Your task to perform on an android device: turn off wifi Image 0: 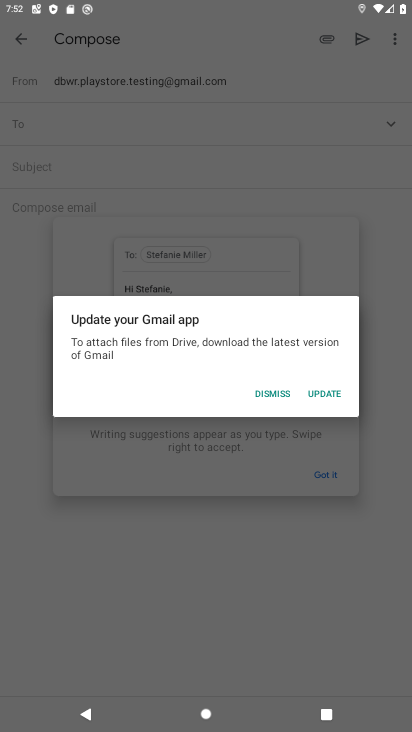
Step 0: press back button
Your task to perform on an android device: turn off wifi Image 1: 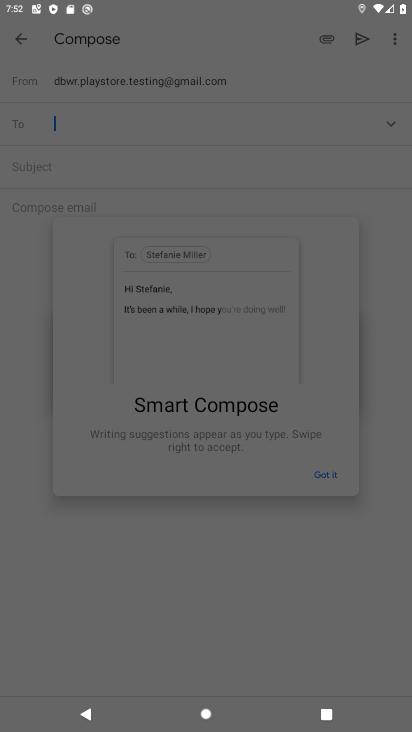
Step 1: press back button
Your task to perform on an android device: turn off wifi Image 2: 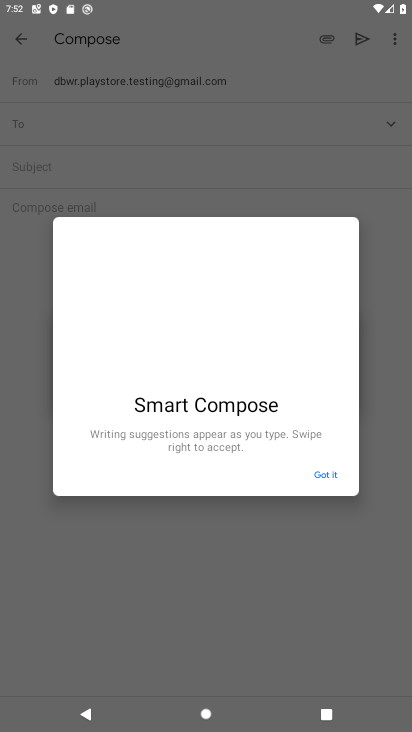
Step 2: press back button
Your task to perform on an android device: turn off wifi Image 3: 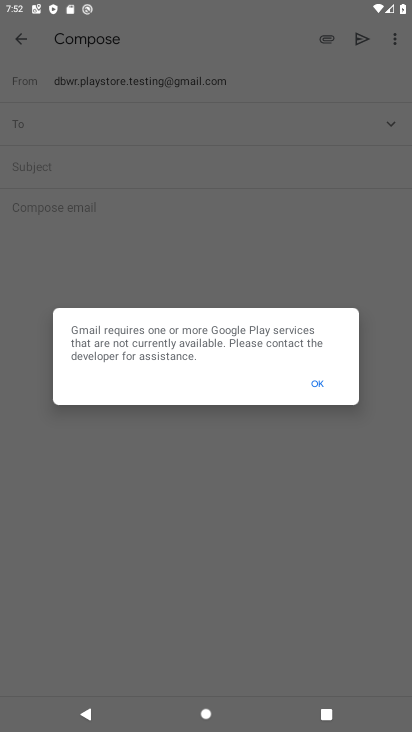
Step 3: press back button
Your task to perform on an android device: turn off wifi Image 4: 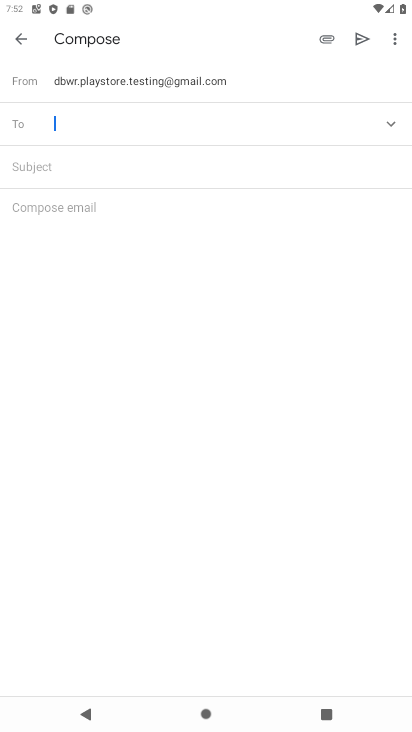
Step 4: press back button
Your task to perform on an android device: turn off wifi Image 5: 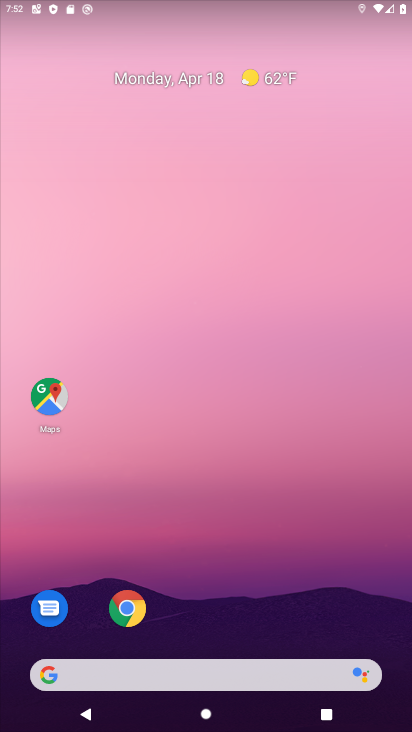
Step 5: drag from (185, 670) to (194, 247)
Your task to perform on an android device: turn off wifi Image 6: 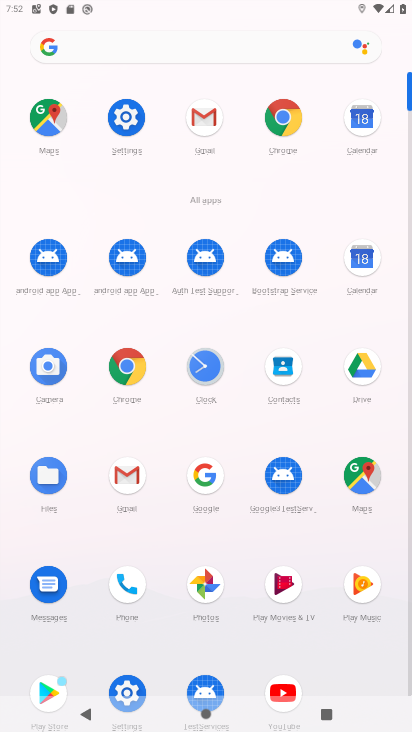
Step 6: click (113, 121)
Your task to perform on an android device: turn off wifi Image 7: 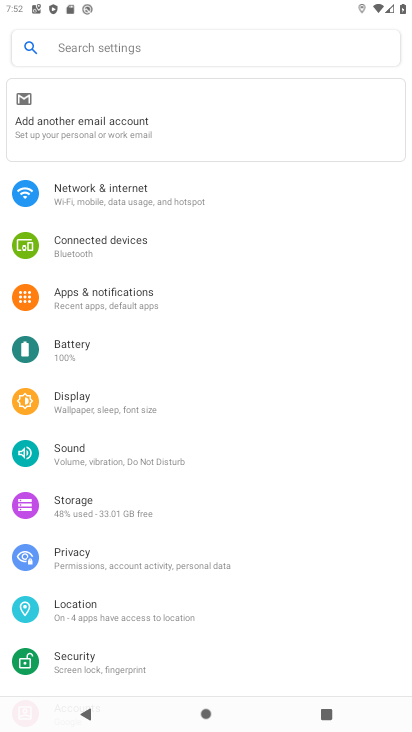
Step 7: click (117, 192)
Your task to perform on an android device: turn off wifi Image 8: 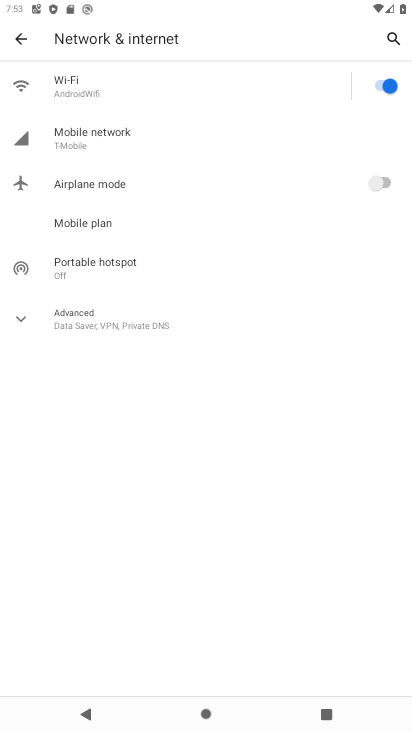
Step 8: click (387, 86)
Your task to perform on an android device: turn off wifi Image 9: 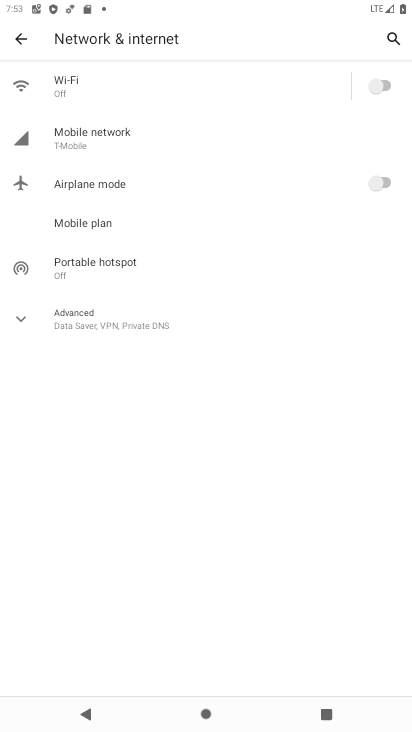
Step 9: task complete